Your task to perform on an android device: toggle airplane mode Image 0: 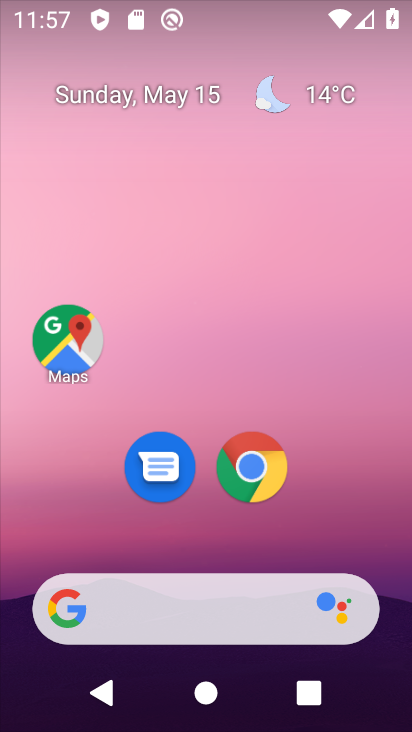
Step 0: drag from (301, 518) to (343, 200)
Your task to perform on an android device: toggle airplane mode Image 1: 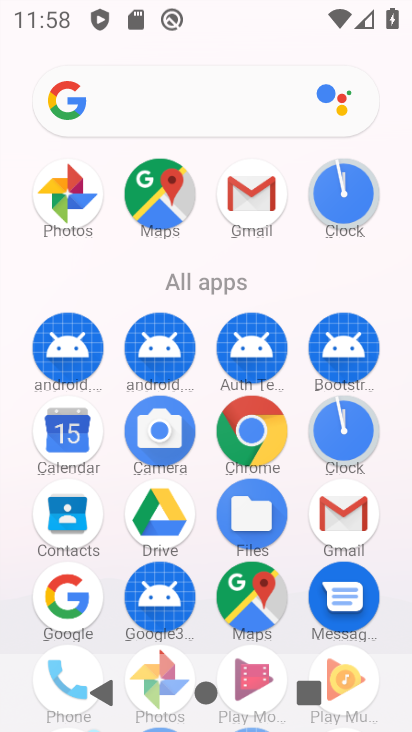
Step 1: drag from (187, 551) to (228, 220)
Your task to perform on an android device: toggle airplane mode Image 2: 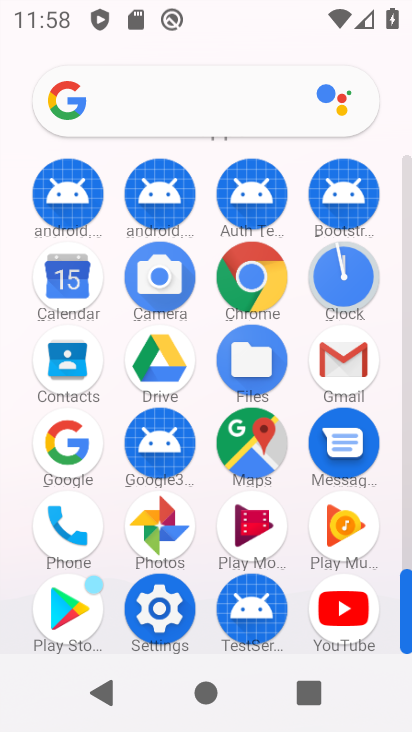
Step 2: click (156, 585)
Your task to perform on an android device: toggle airplane mode Image 3: 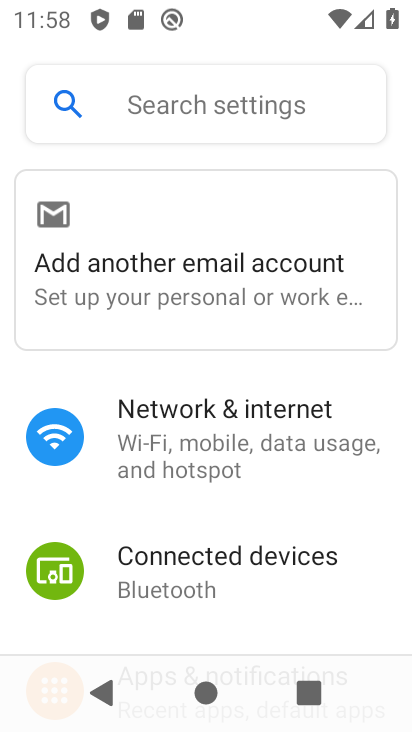
Step 3: click (176, 418)
Your task to perform on an android device: toggle airplane mode Image 4: 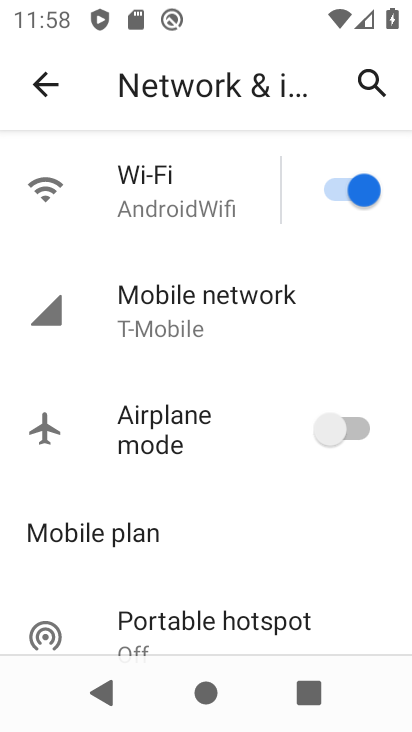
Step 4: click (331, 439)
Your task to perform on an android device: toggle airplane mode Image 5: 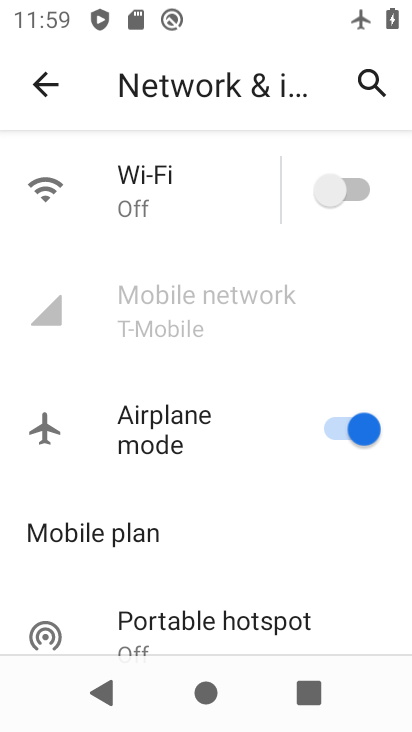
Step 5: task complete